Your task to perform on an android device: turn on notifications settings in the gmail app Image 0: 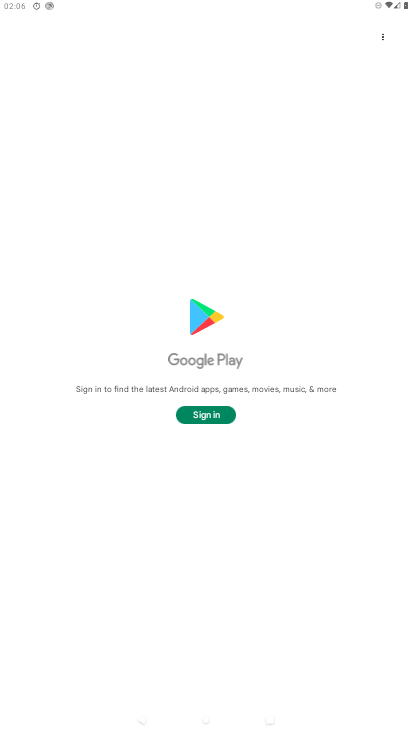
Step 0: press home button
Your task to perform on an android device: turn on notifications settings in the gmail app Image 1: 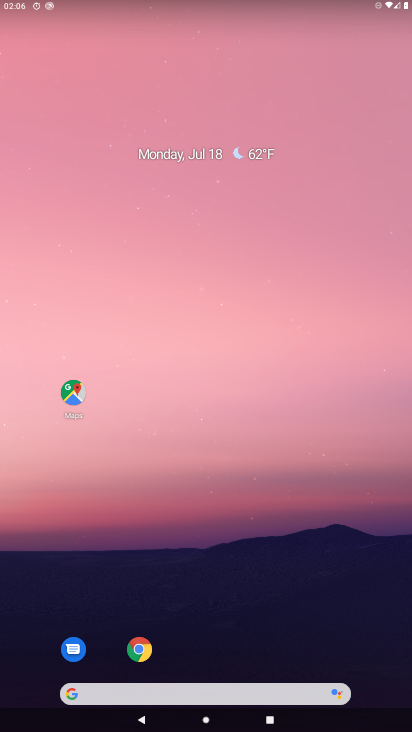
Step 1: drag from (31, 699) to (241, 106)
Your task to perform on an android device: turn on notifications settings in the gmail app Image 2: 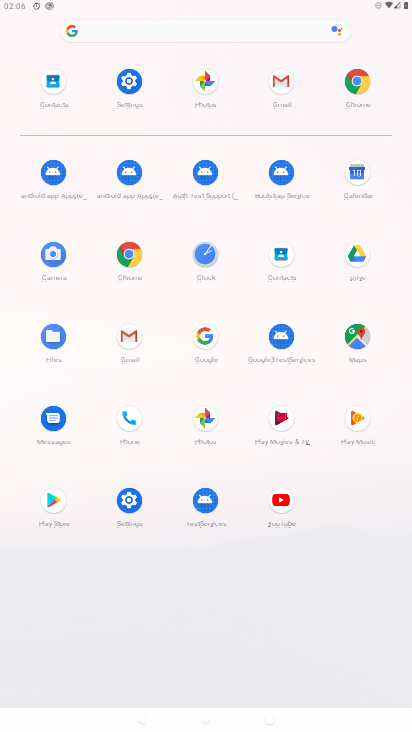
Step 2: click (125, 344)
Your task to perform on an android device: turn on notifications settings in the gmail app Image 3: 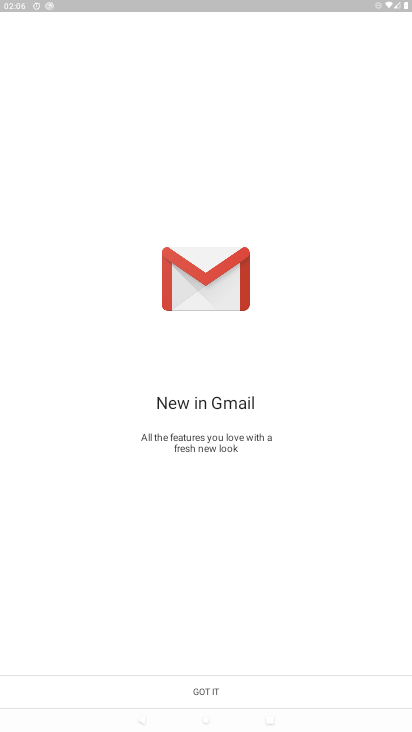
Step 3: click (231, 691)
Your task to perform on an android device: turn on notifications settings in the gmail app Image 4: 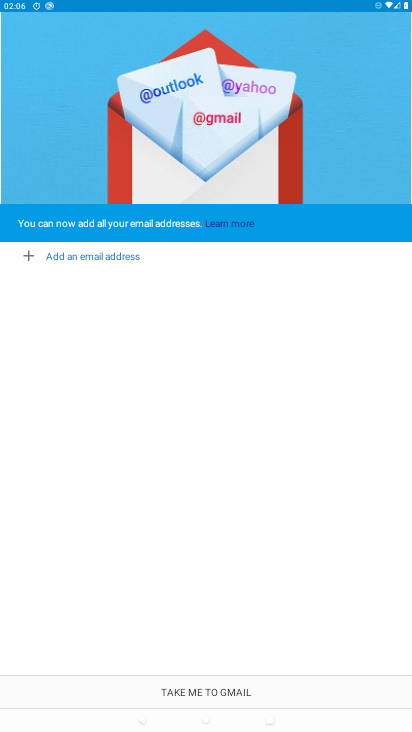
Step 4: click (230, 703)
Your task to perform on an android device: turn on notifications settings in the gmail app Image 5: 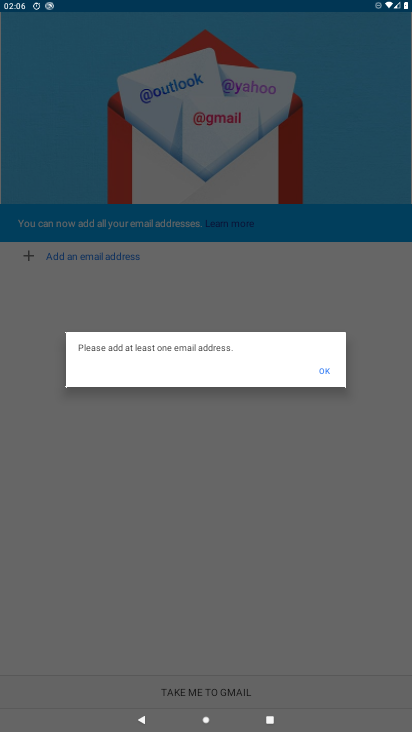
Step 5: click (323, 360)
Your task to perform on an android device: turn on notifications settings in the gmail app Image 6: 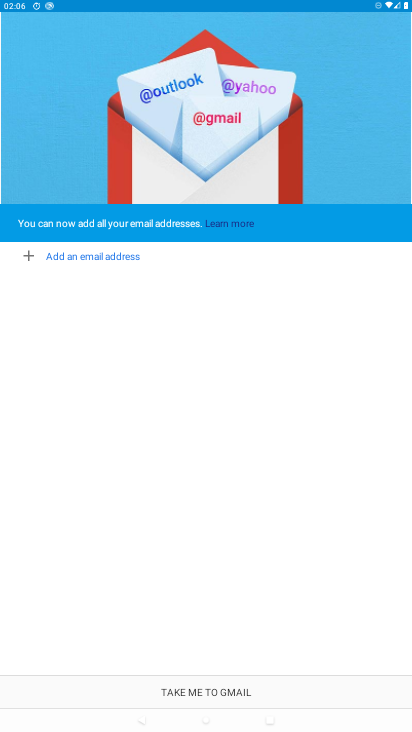
Step 6: task complete